Your task to perform on an android device: Search for Italian restaurants on Maps Image 0: 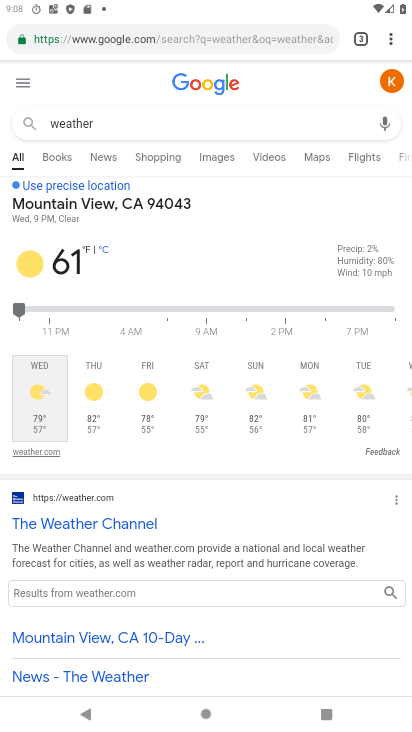
Step 0: press home button
Your task to perform on an android device: Search for Italian restaurants on Maps Image 1: 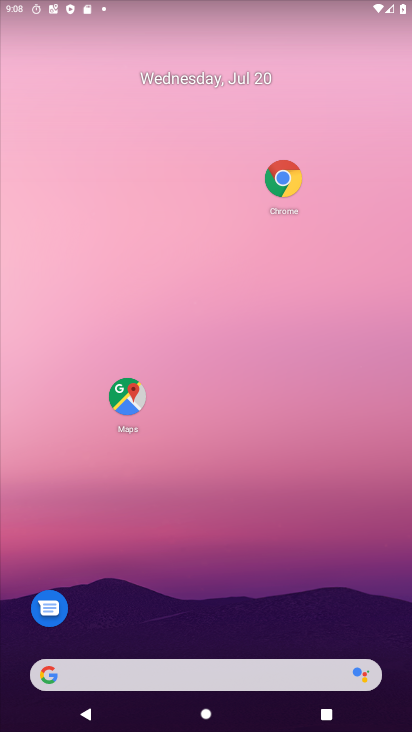
Step 1: drag from (278, 577) to (206, 84)
Your task to perform on an android device: Search for Italian restaurants on Maps Image 2: 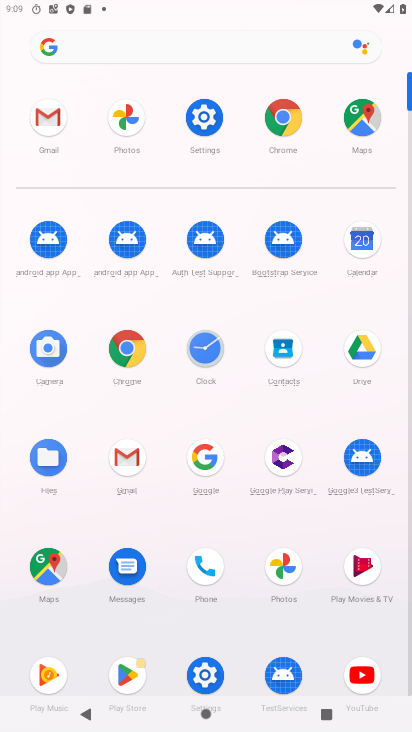
Step 2: click (358, 131)
Your task to perform on an android device: Search for Italian restaurants on Maps Image 3: 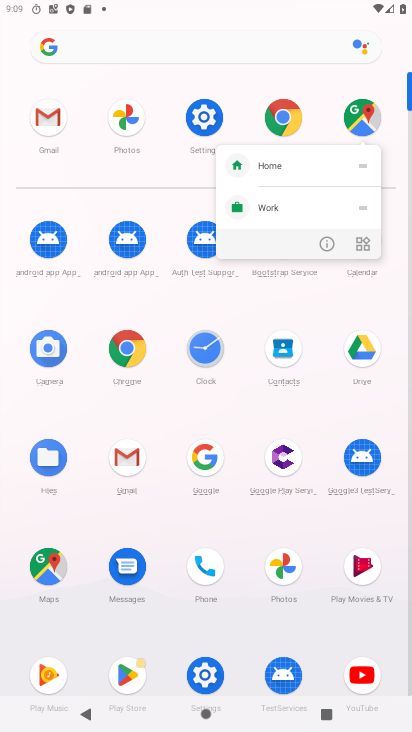
Step 3: click (36, 580)
Your task to perform on an android device: Search for Italian restaurants on Maps Image 4: 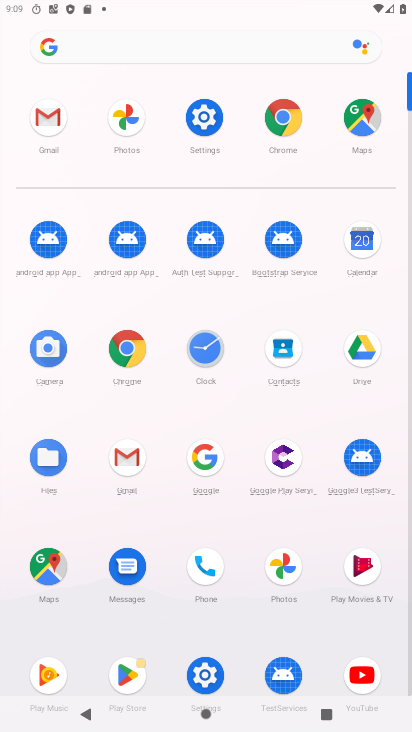
Step 4: click (59, 568)
Your task to perform on an android device: Search for Italian restaurants on Maps Image 5: 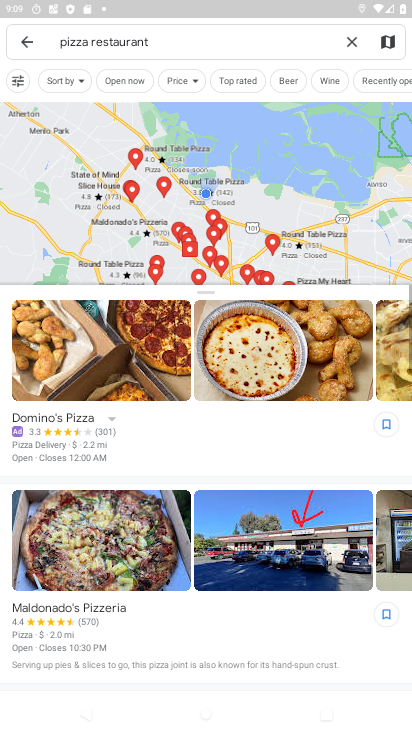
Step 5: click (356, 41)
Your task to perform on an android device: Search for Italian restaurants on Maps Image 6: 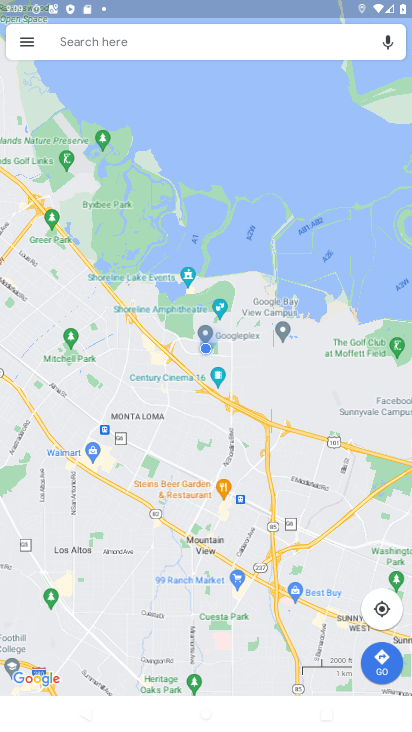
Step 6: click (163, 46)
Your task to perform on an android device: Search for Italian restaurants on Maps Image 7: 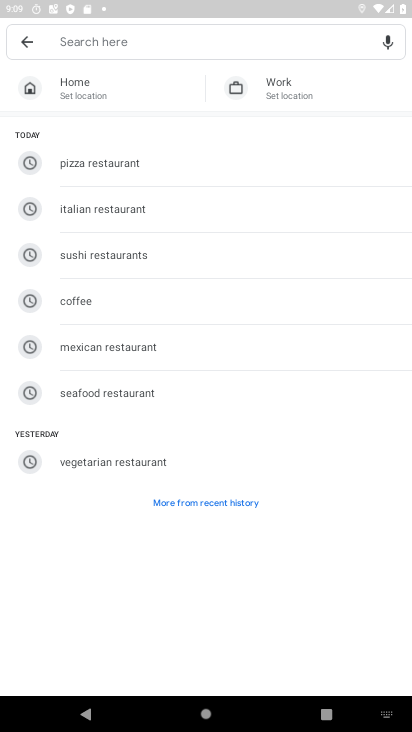
Step 7: click (103, 216)
Your task to perform on an android device: Search for Italian restaurants on Maps Image 8: 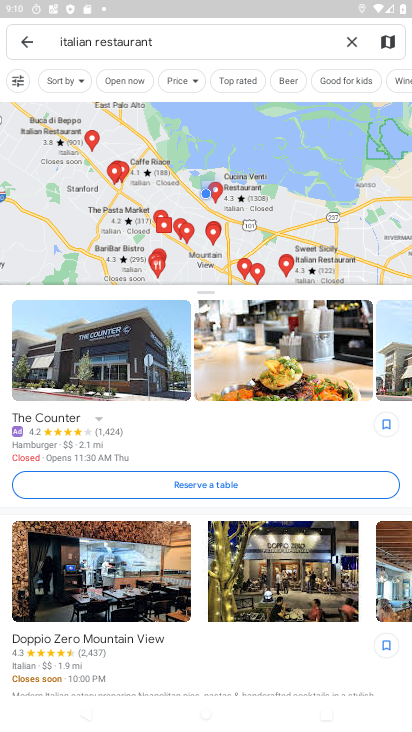
Step 8: task complete